Your task to perform on an android device: show emergency info Image 0: 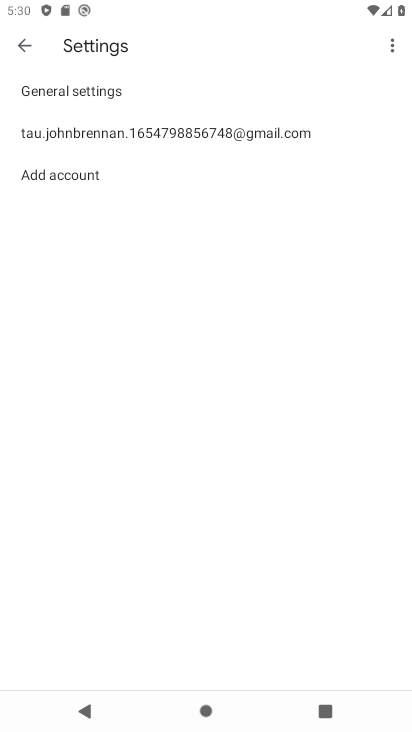
Step 0: press home button
Your task to perform on an android device: show emergency info Image 1: 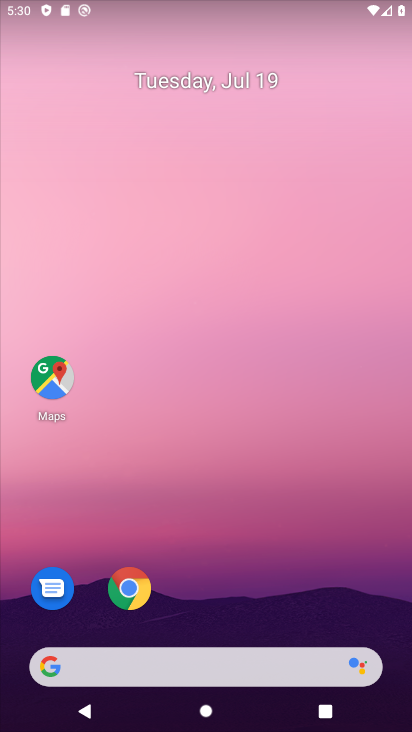
Step 1: drag from (215, 21) to (224, 587)
Your task to perform on an android device: show emergency info Image 2: 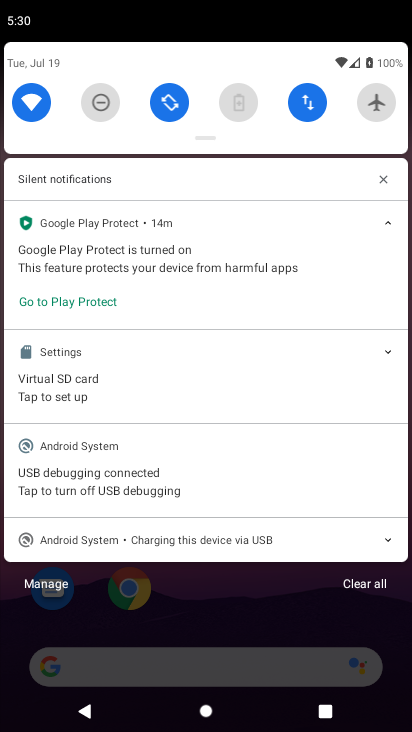
Step 2: drag from (199, 53) to (168, 575)
Your task to perform on an android device: show emergency info Image 3: 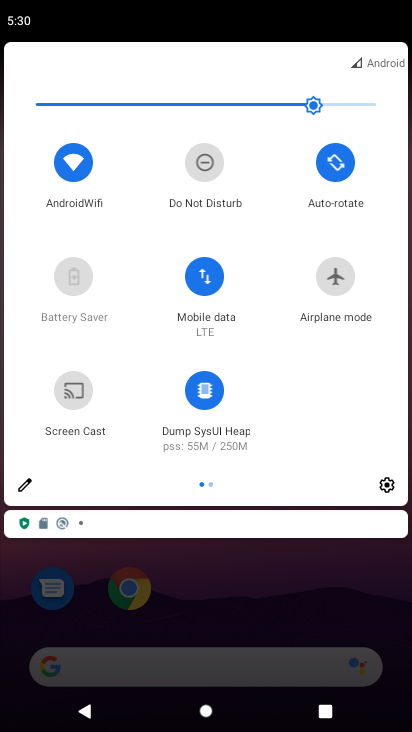
Step 3: click (386, 478)
Your task to perform on an android device: show emergency info Image 4: 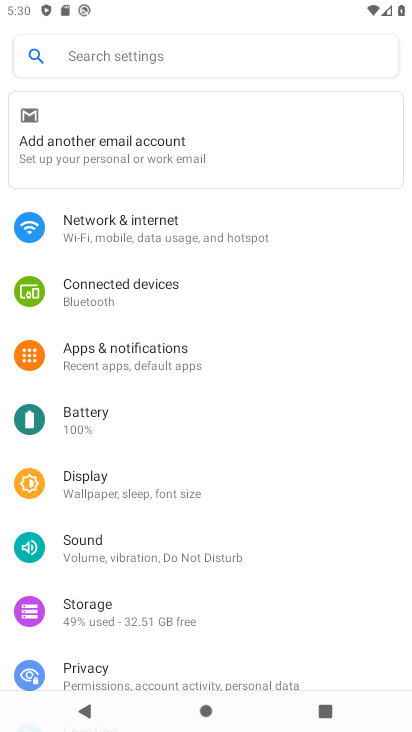
Step 4: drag from (172, 578) to (196, 216)
Your task to perform on an android device: show emergency info Image 5: 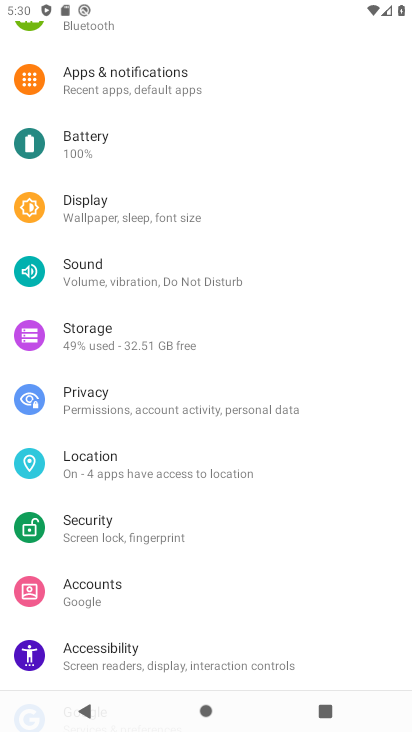
Step 5: drag from (87, 616) to (92, 166)
Your task to perform on an android device: show emergency info Image 6: 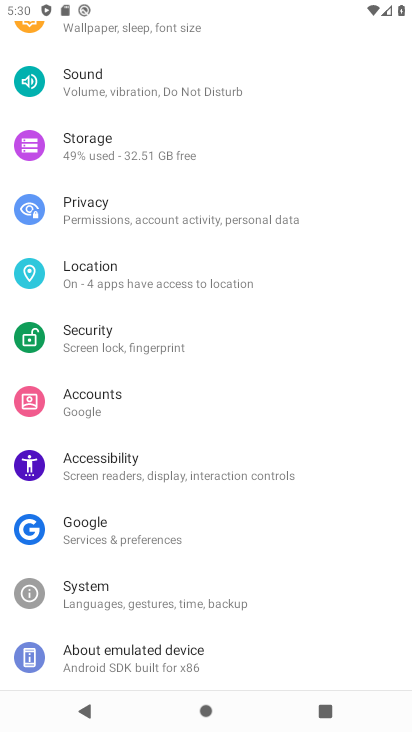
Step 6: drag from (72, 645) to (139, 116)
Your task to perform on an android device: show emergency info Image 7: 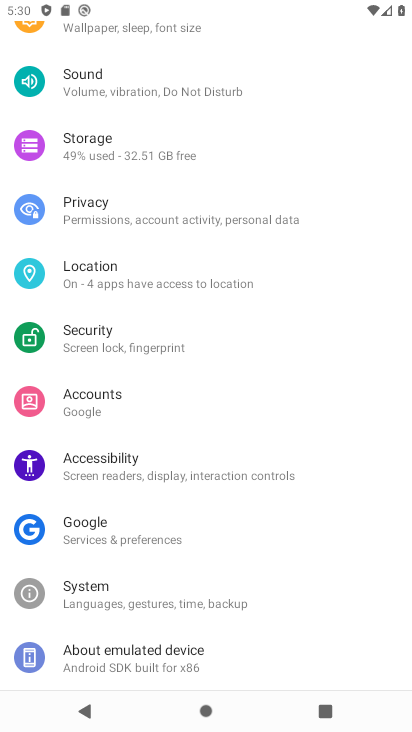
Step 7: click (142, 657)
Your task to perform on an android device: show emergency info Image 8: 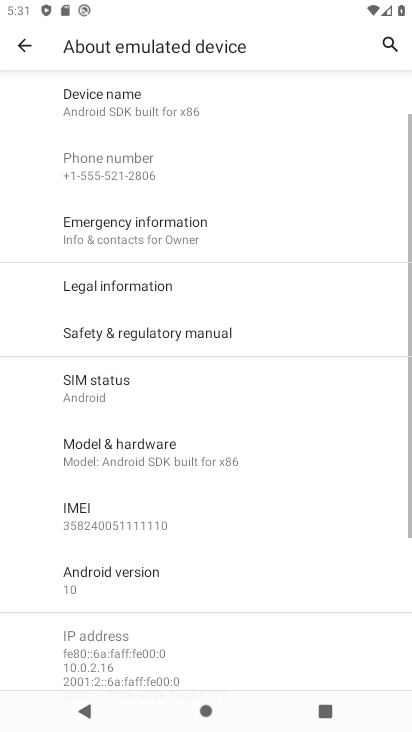
Step 8: click (185, 212)
Your task to perform on an android device: show emergency info Image 9: 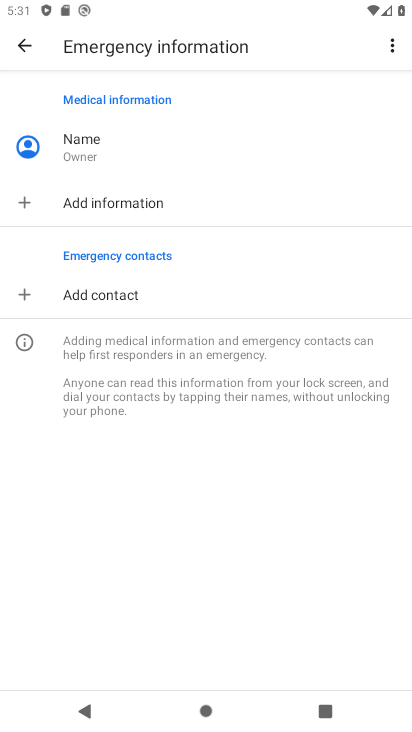
Step 9: task complete